Your task to perform on an android device: Go to calendar. Show me events next week Image 0: 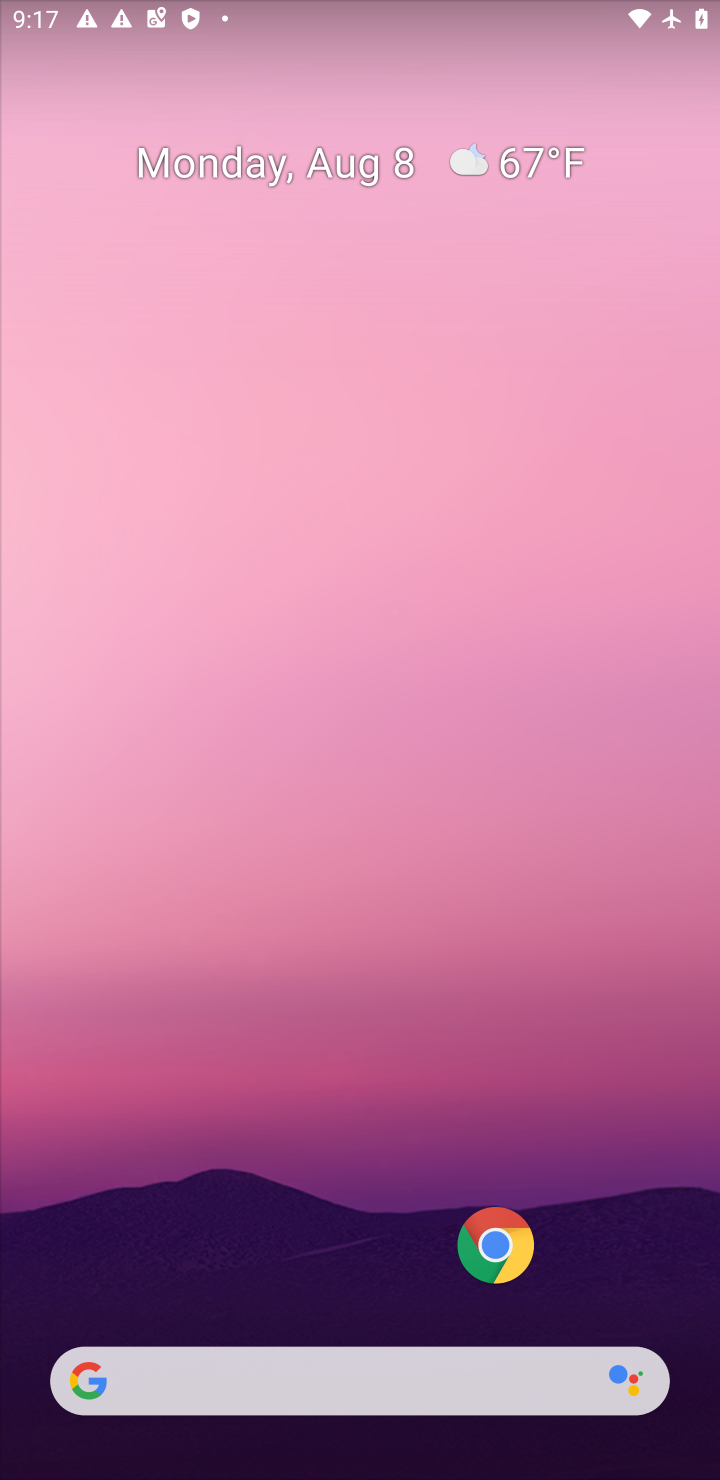
Step 0: press home button
Your task to perform on an android device: Go to calendar. Show me events next week Image 1: 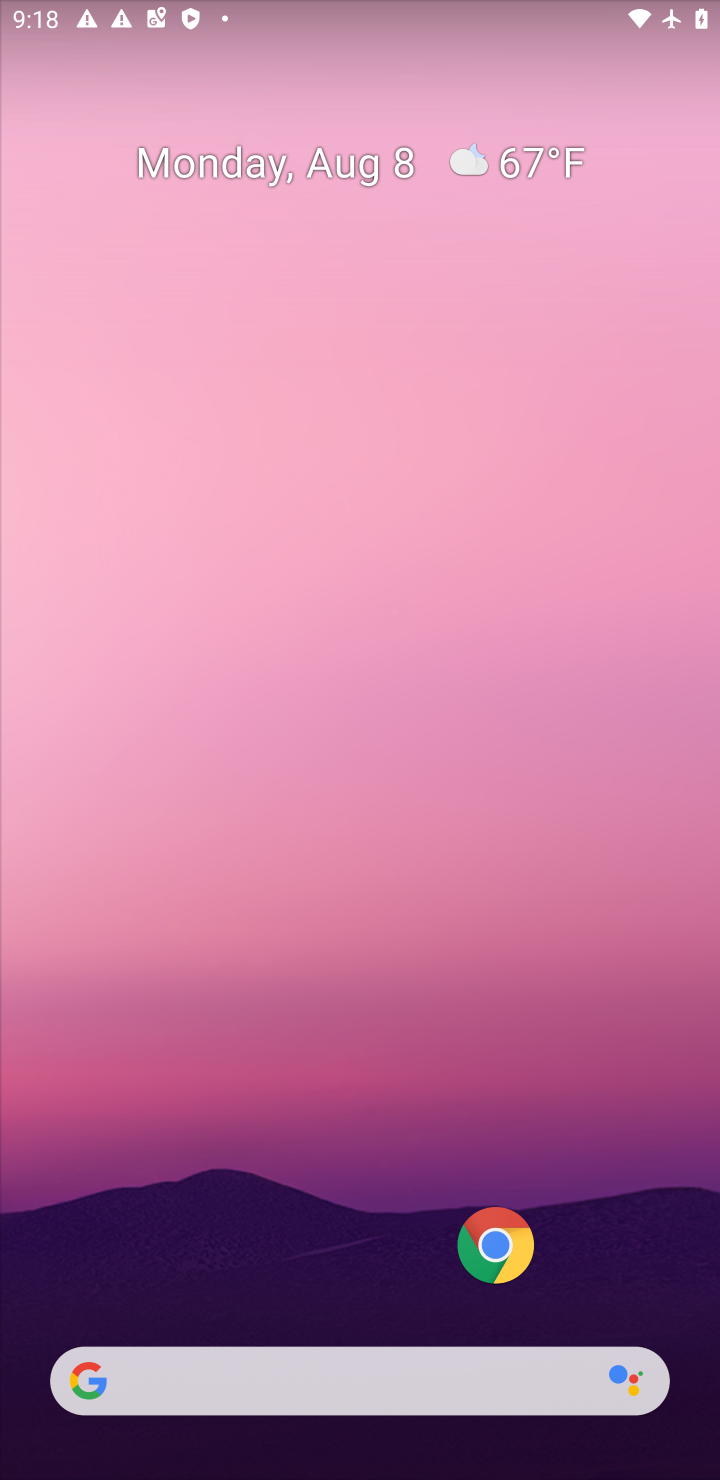
Step 1: drag from (294, 1304) to (324, 26)
Your task to perform on an android device: Go to calendar. Show me events next week Image 2: 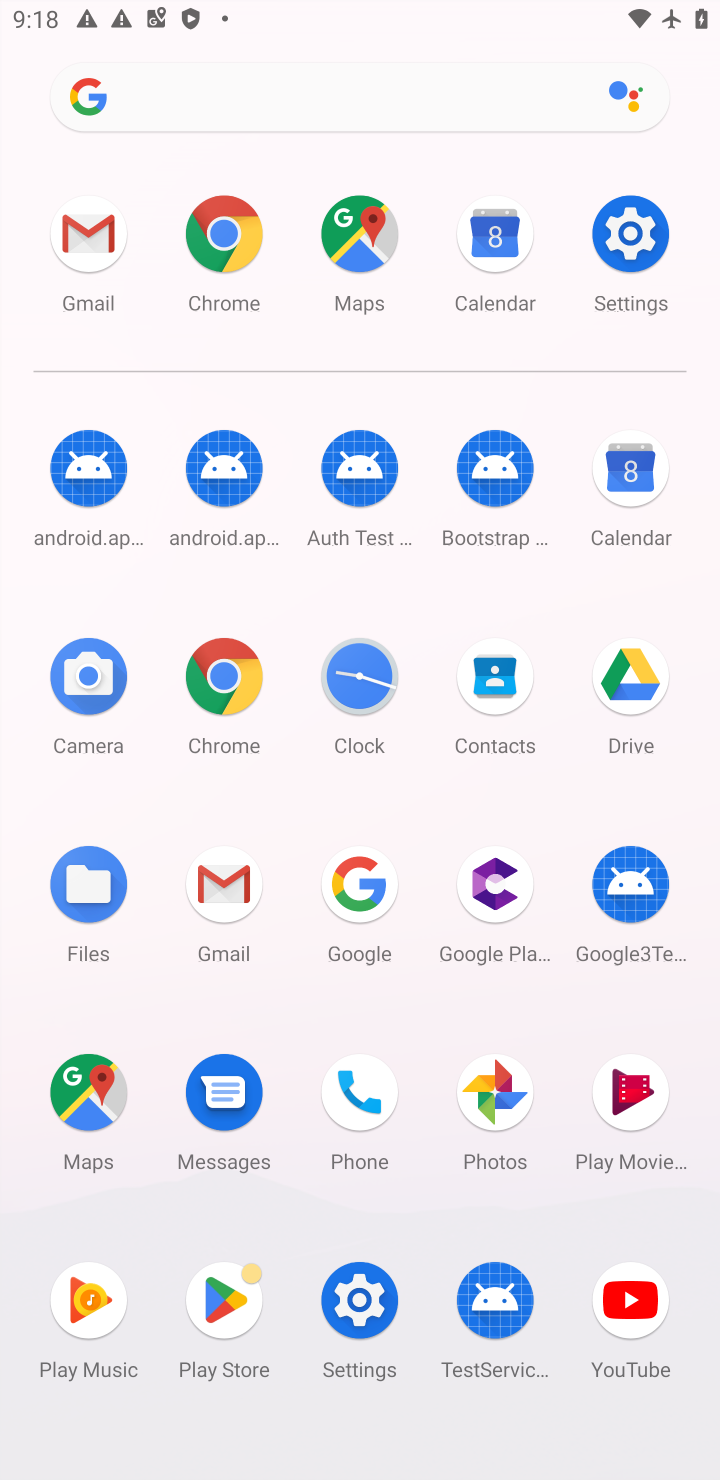
Step 2: click (637, 496)
Your task to perform on an android device: Go to calendar. Show me events next week Image 3: 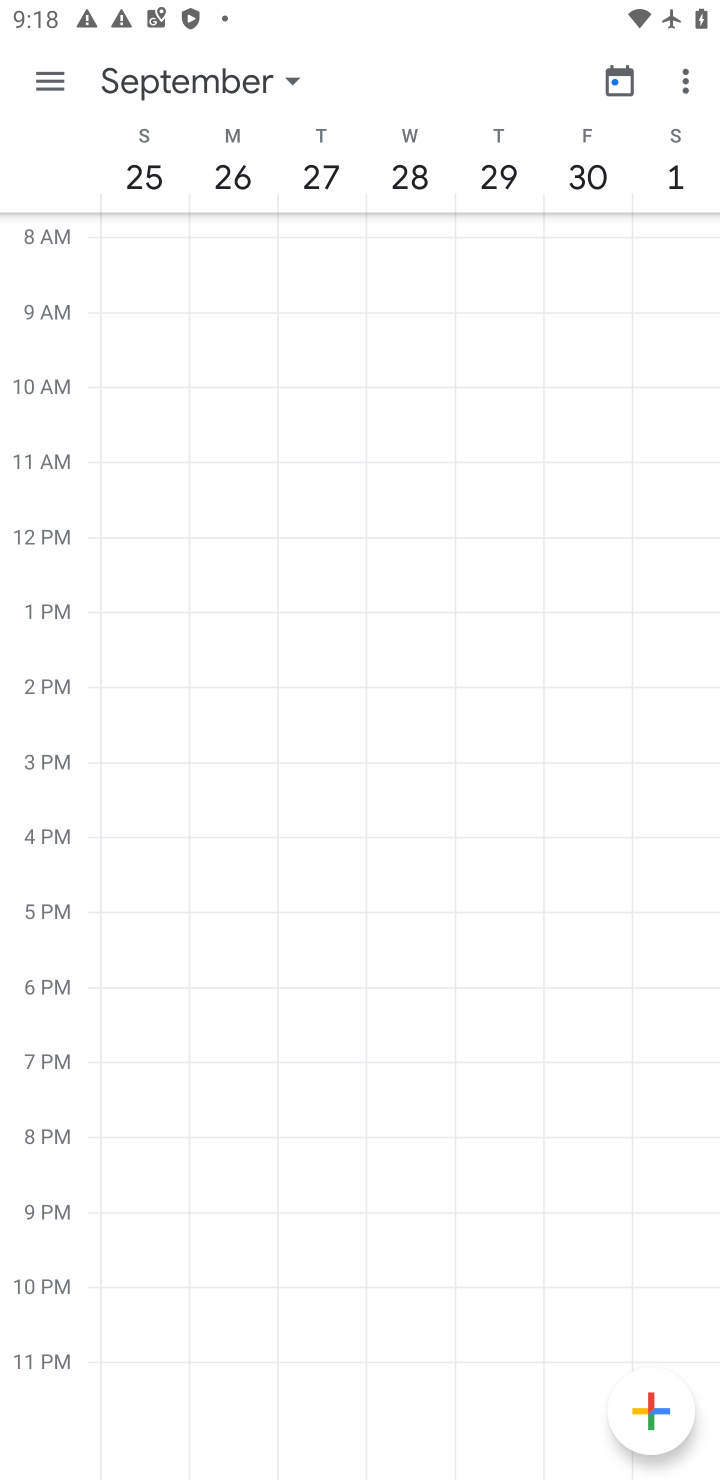
Step 3: click (629, 500)
Your task to perform on an android device: Go to calendar. Show me events next week Image 4: 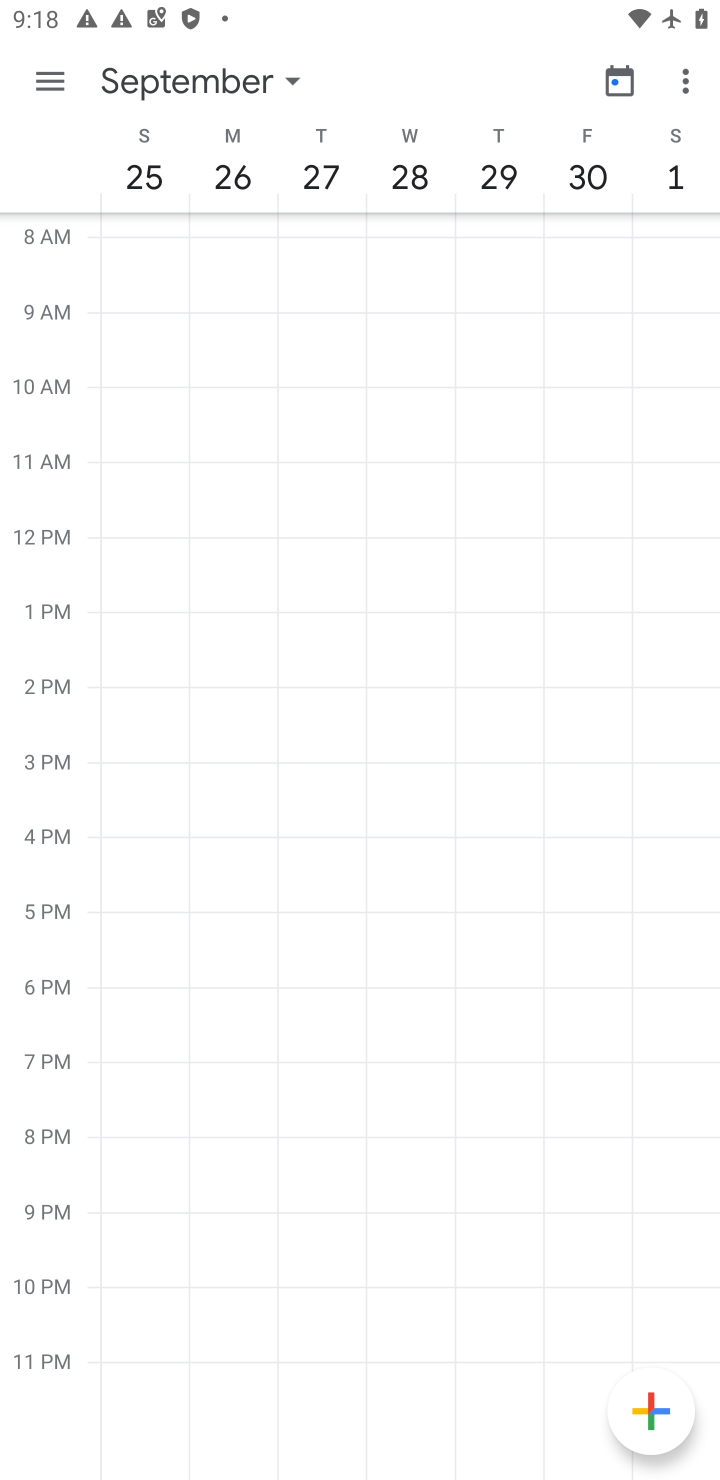
Step 4: click (158, 69)
Your task to perform on an android device: Go to calendar. Show me events next week Image 5: 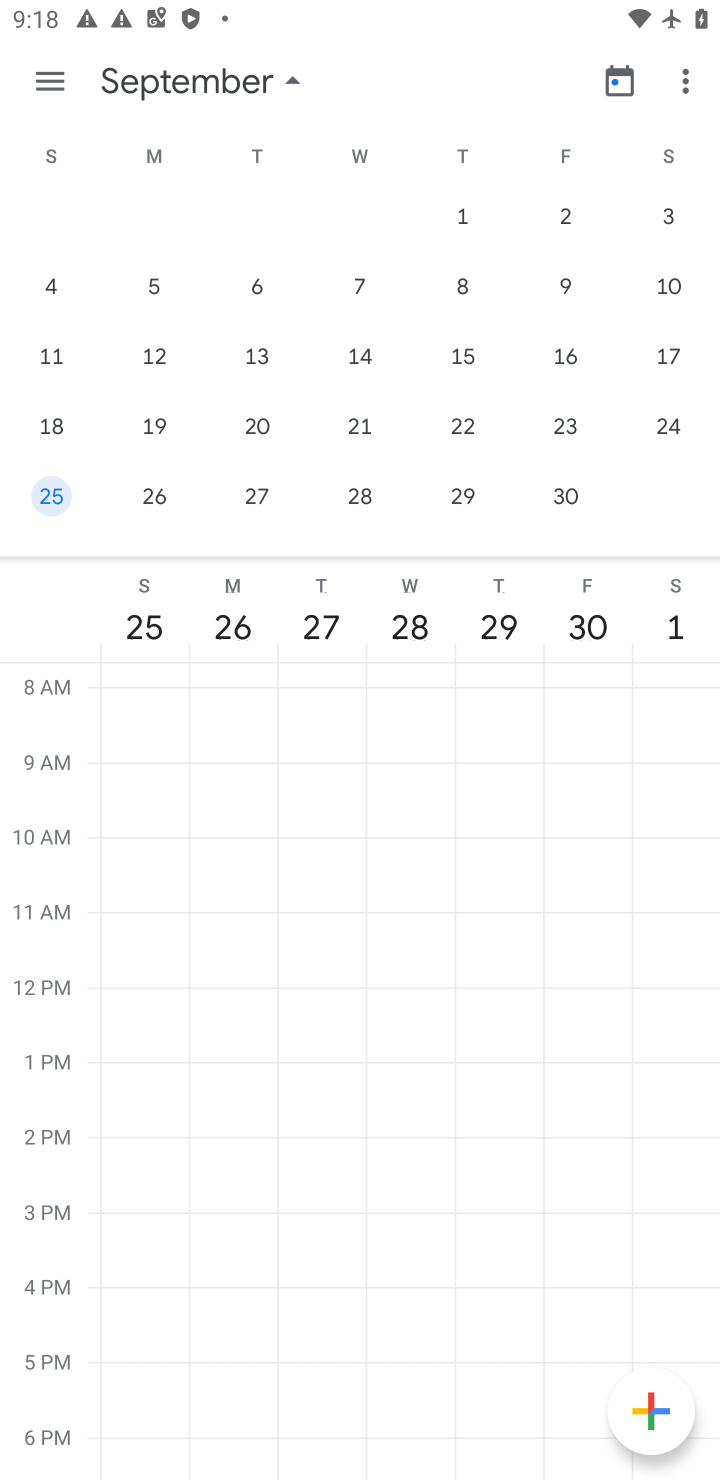
Step 5: drag from (105, 409) to (678, 496)
Your task to perform on an android device: Go to calendar. Show me events next week Image 6: 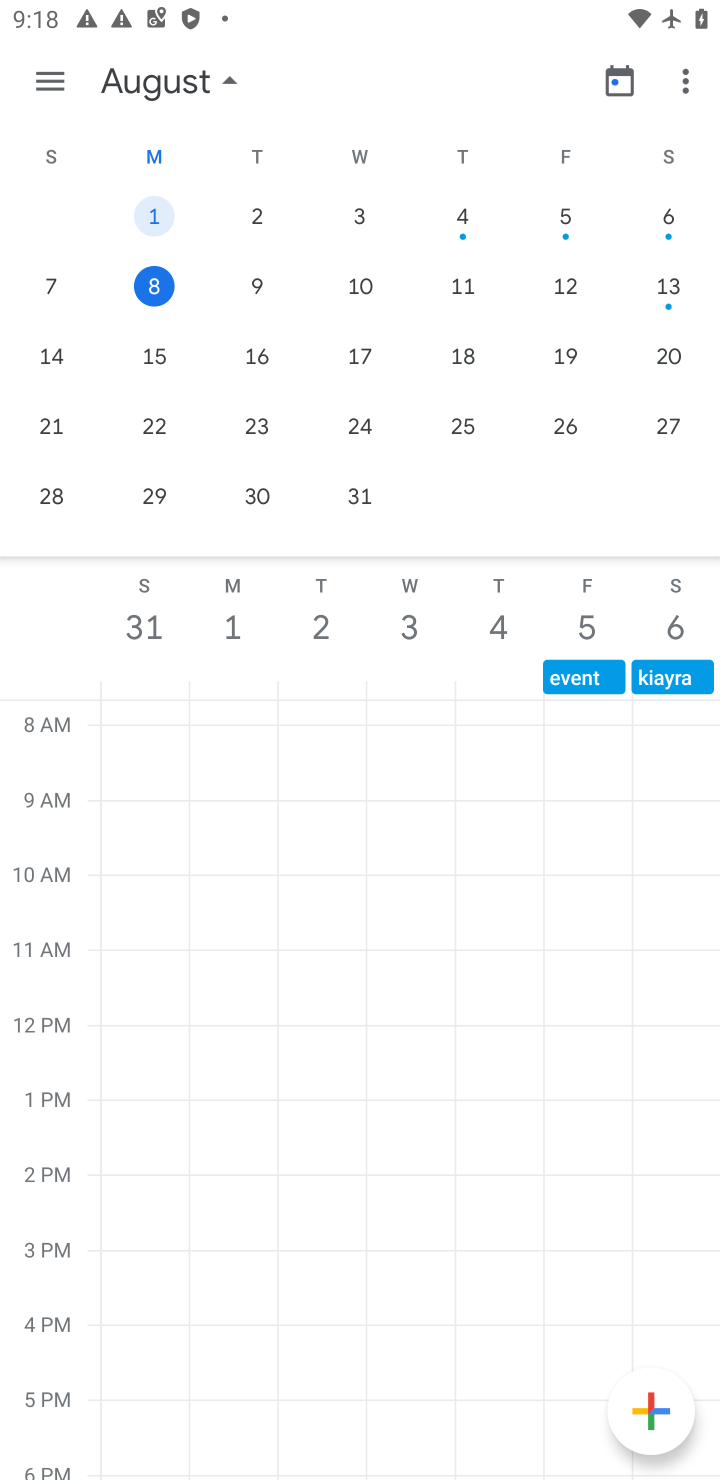
Step 6: click (158, 287)
Your task to perform on an android device: Go to calendar. Show me events next week Image 7: 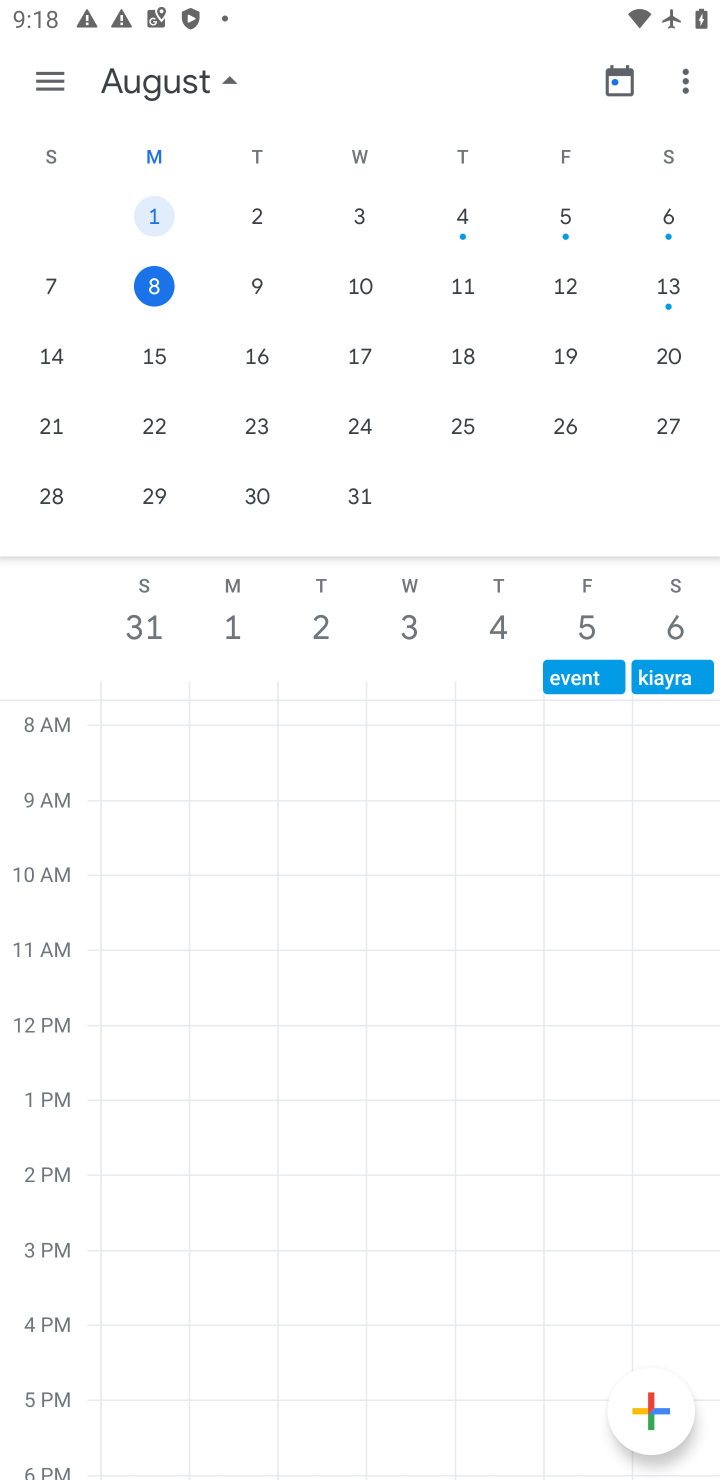
Step 7: click (68, 79)
Your task to perform on an android device: Go to calendar. Show me events next week Image 8: 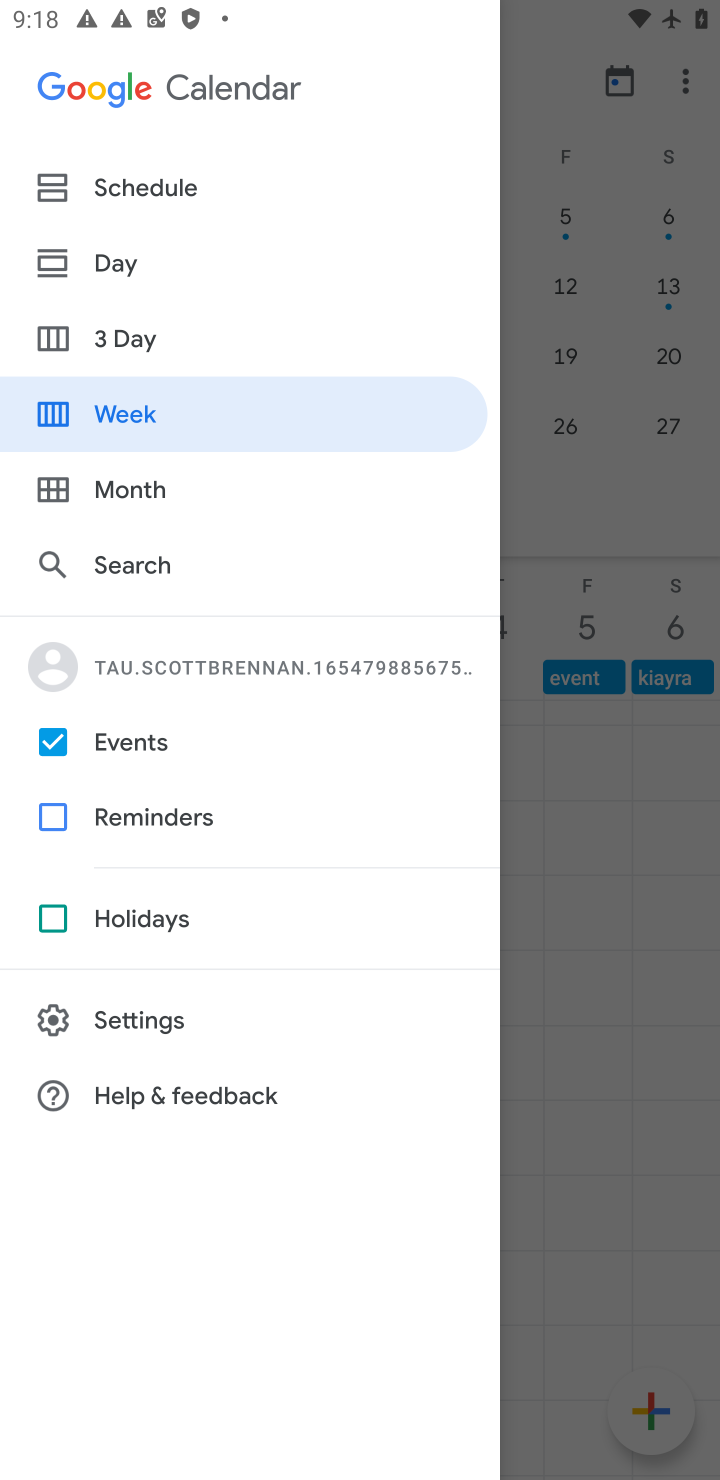
Step 8: click (118, 423)
Your task to perform on an android device: Go to calendar. Show me events next week Image 9: 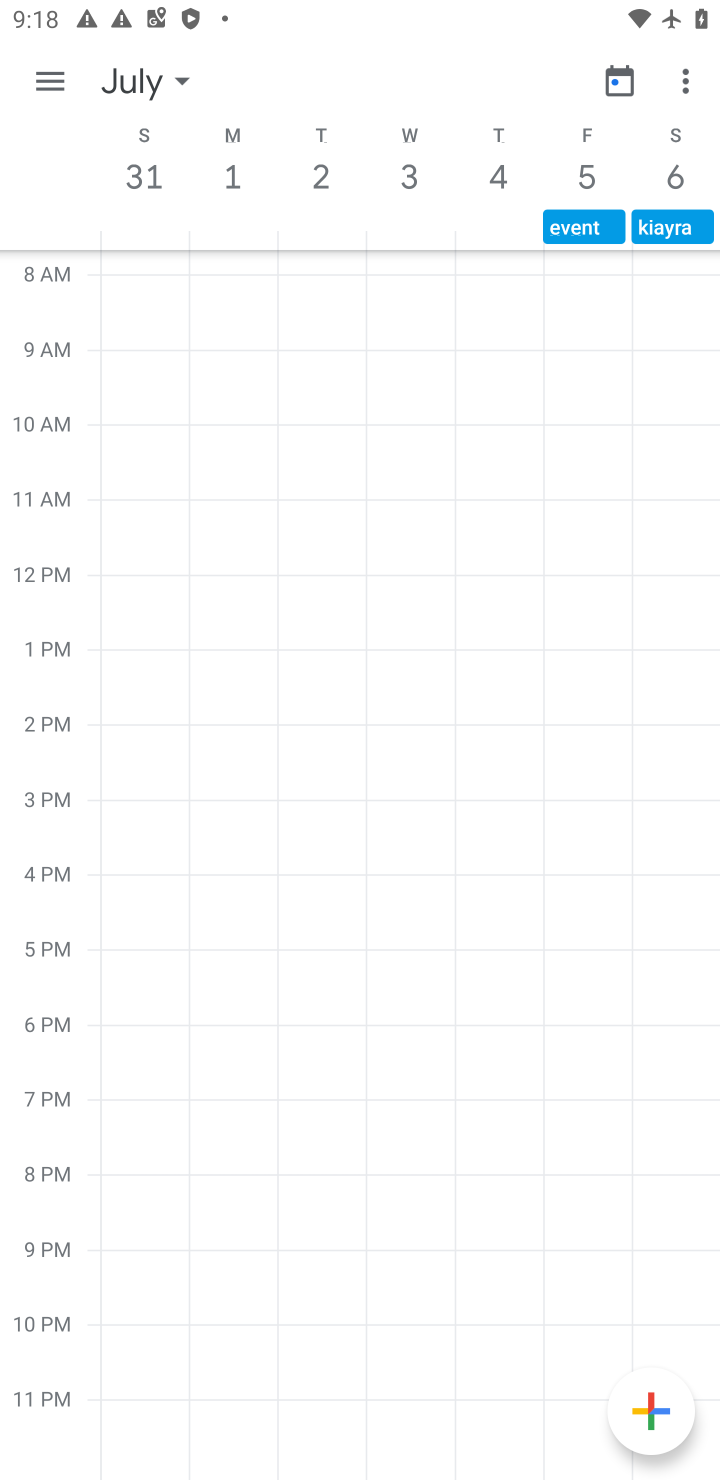
Step 9: task complete